Your task to perform on an android device: Search for seafood restaurants on Google Maps Image 0: 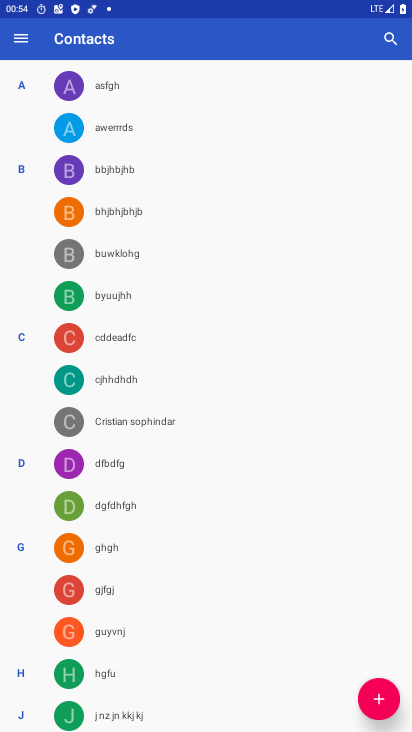
Step 0: press home button
Your task to perform on an android device: Search for seafood restaurants on Google Maps Image 1: 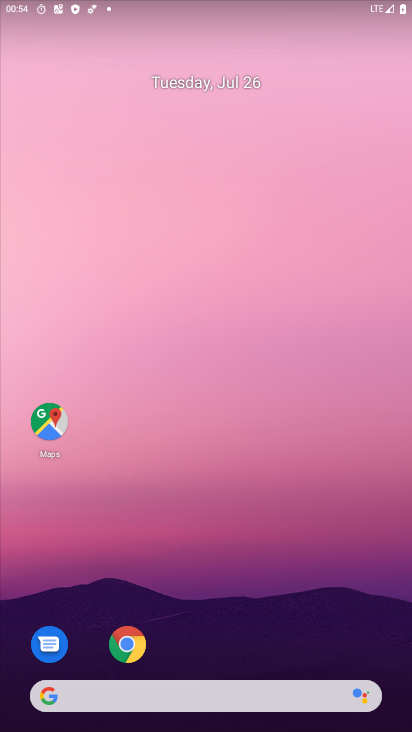
Step 1: click (54, 424)
Your task to perform on an android device: Search for seafood restaurants on Google Maps Image 2: 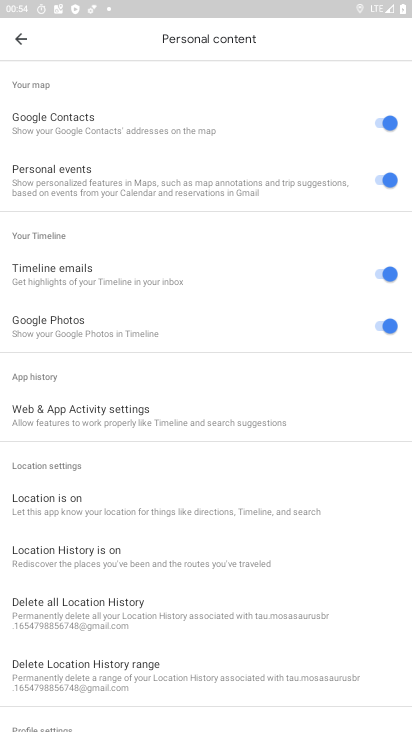
Step 2: click (22, 42)
Your task to perform on an android device: Search for seafood restaurants on Google Maps Image 3: 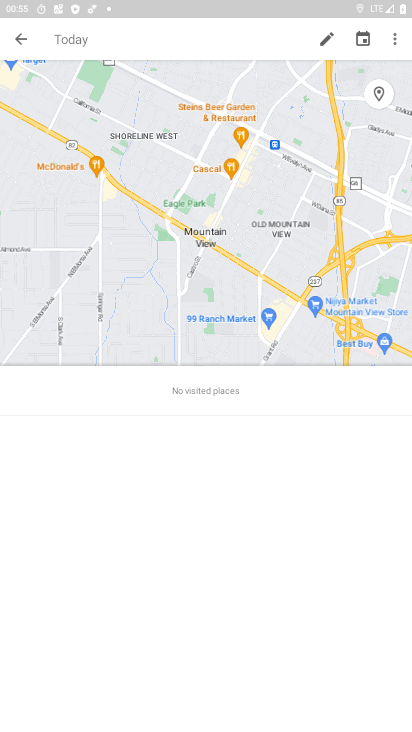
Step 3: click (22, 42)
Your task to perform on an android device: Search for seafood restaurants on Google Maps Image 4: 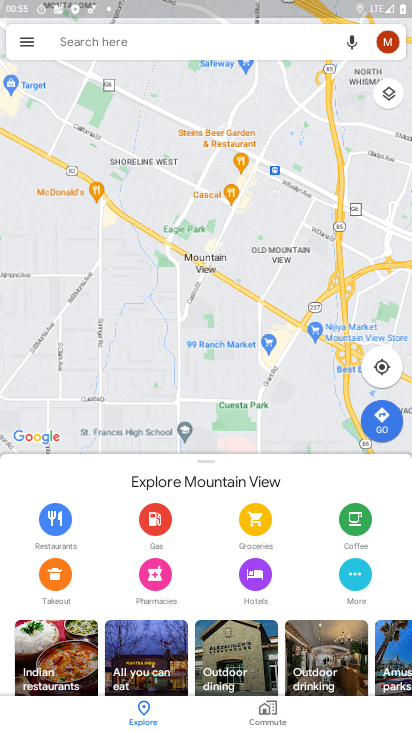
Step 4: click (22, 42)
Your task to perform on an android device: Search for seafood restaurants on Google Maps Image 5: 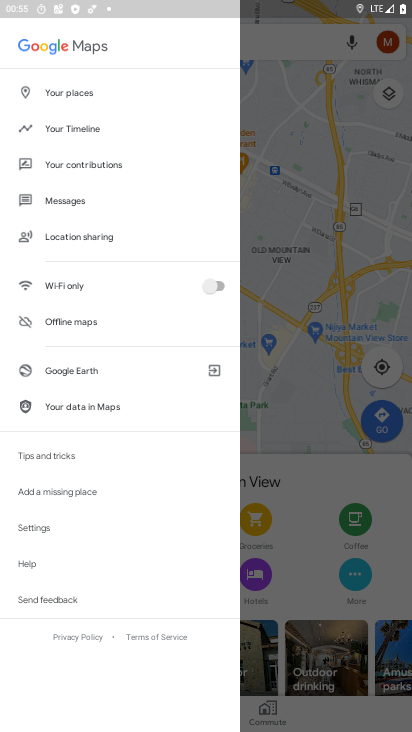
Step 5: click (276, 47)
Your task to perform on an android device: Search for seafood restaurants on Google Maps Image 6: 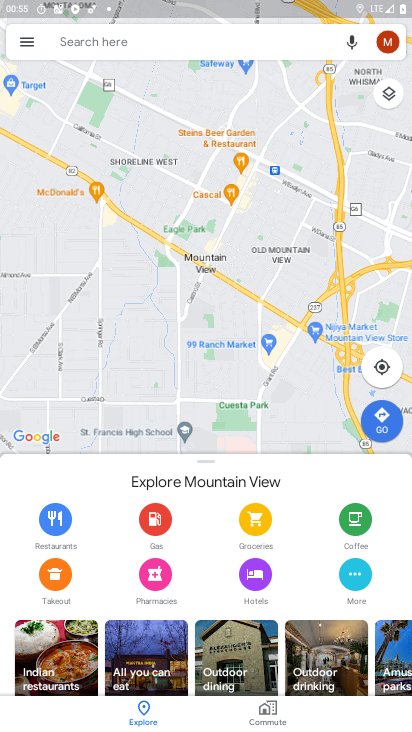
Step 6: click (110, 35)
Your task to perform on an android device: Search for seafood restaurants on Google Maps Image 7: 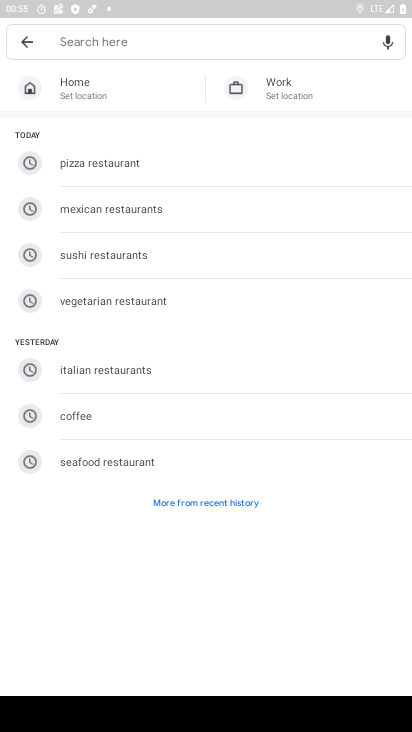
Step 7: type " seafood restaurants"
Your task to perform on an android device: Search for seafood restaurants on Google Maps Image 8: 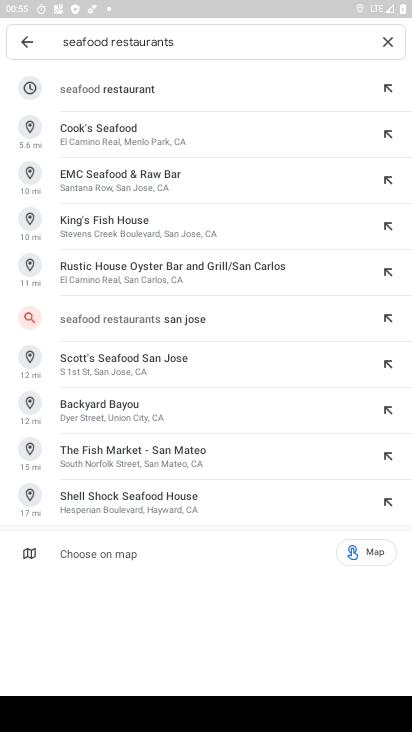
Step 8: click (119, 90)
Your task to perform on an android device: Search for seafood restaurants on Google Maps Image 9: 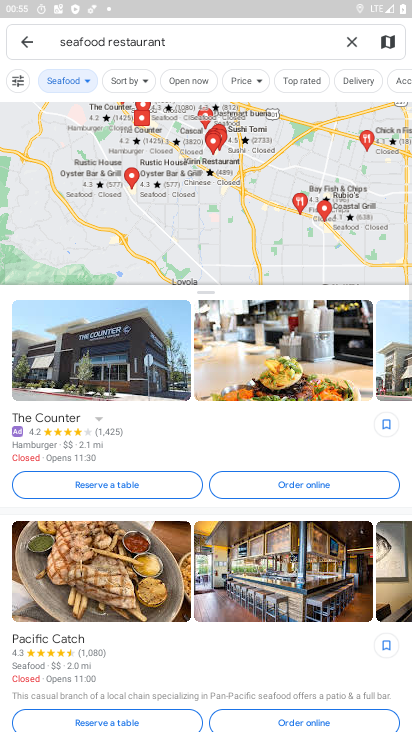
Step 9: task complete